Your task to perform on an android device: Play the last video I watched on Youtube Image 0: 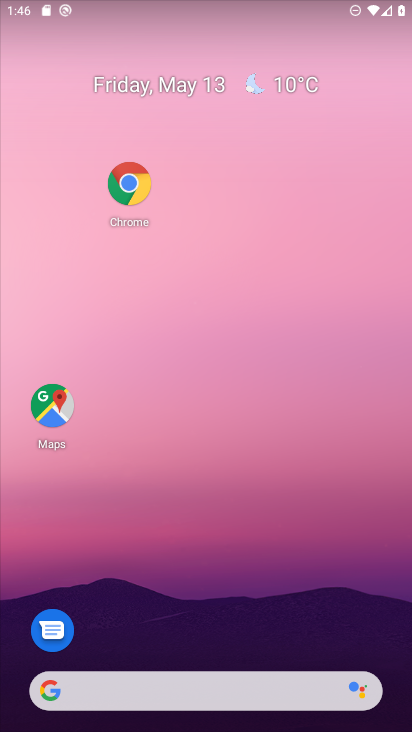
Step 0: drag from (208, 676) to (337, 71)
Your task to perform on an android device: Play the last video I watched on Youtube Image 1: 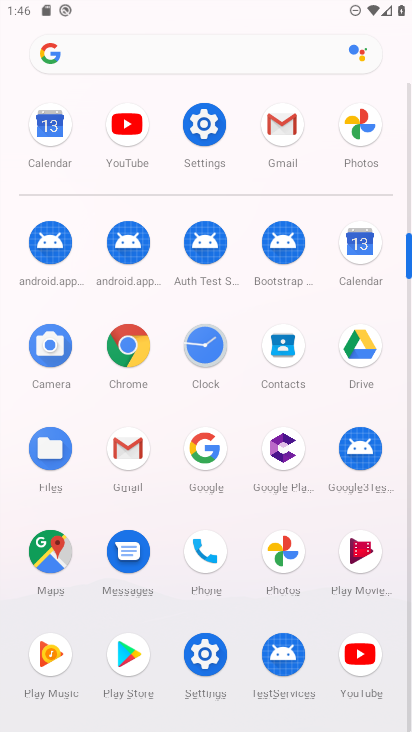
Step 1: click (122, 132)
Your task to perform on an android device: Play the last video I watched on Youtube Image 2: 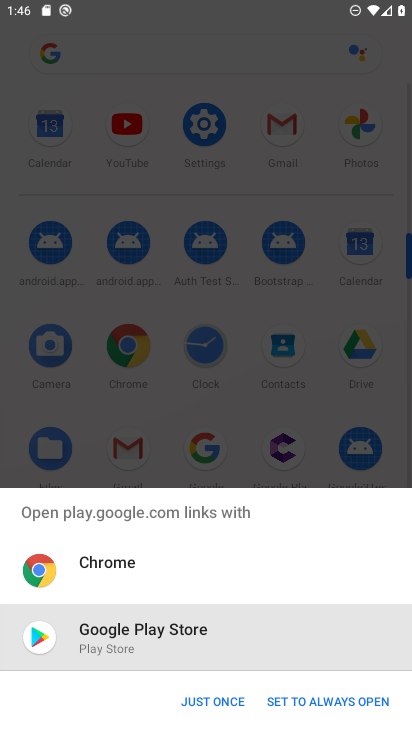
Step 2: click (184, 706)
Your task to perform on an android device: Play the last video I watched on Youtube Image 3: 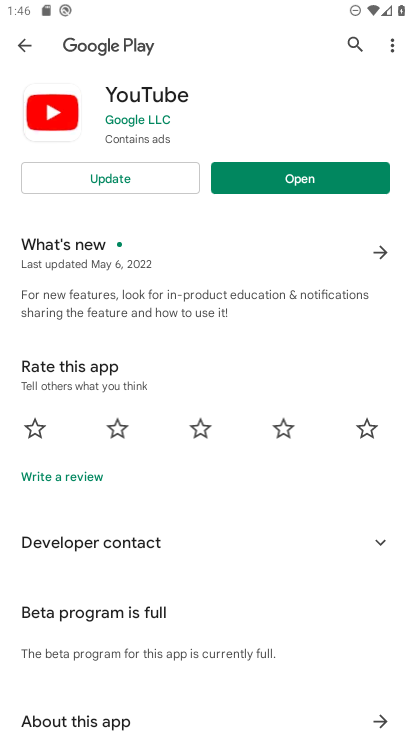
Step 3: click (165, 183)
Your task to perform on an android device: Play the last video I watched on Youtube Image 4: 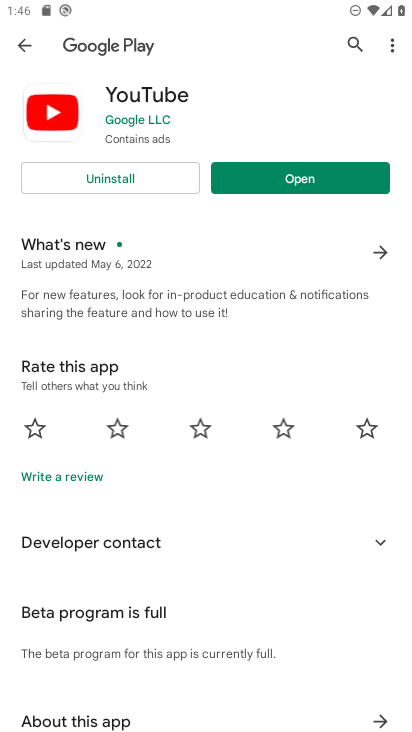
Step 4: click (308, 192)
Your task to perform on an android device: Play the last video I watched on Youtube Image 5: 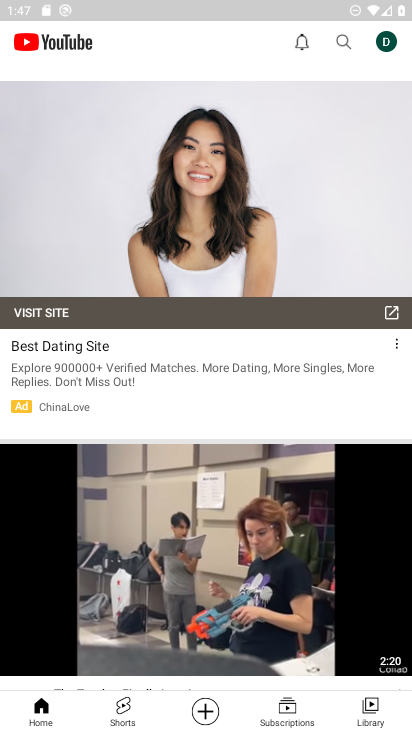
Step 5: click (355, 712)
Your task to perform on an android device: Play the last video I watched on Youtube Image 6: 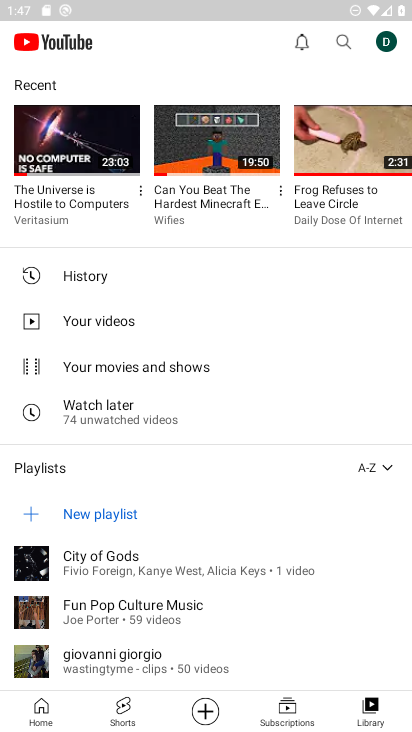
Step 6: click (83, 276)
Your task to perform on an android device: Play the last video I watched on Youtube Image 7: 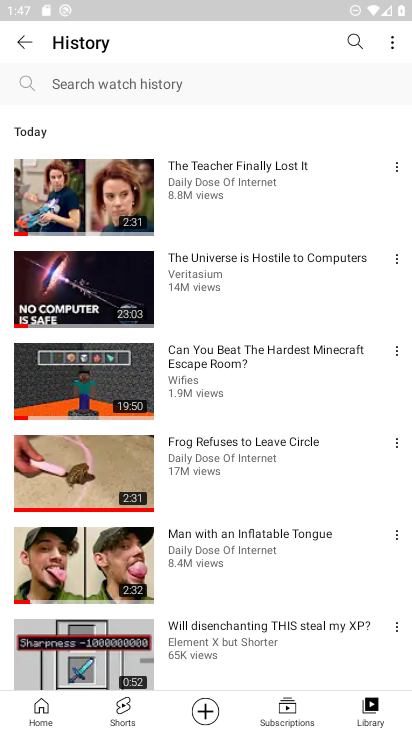
Step 7: click (130, 197)
Your task to perform on an android device: Play the last video I watched on Youtube Image 8: 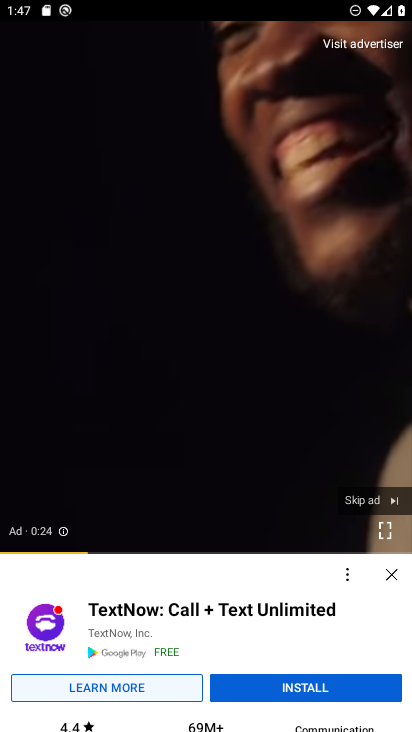
Step 8: task complete